Your task to perform on an android device: change the clock display to analog Image 0: 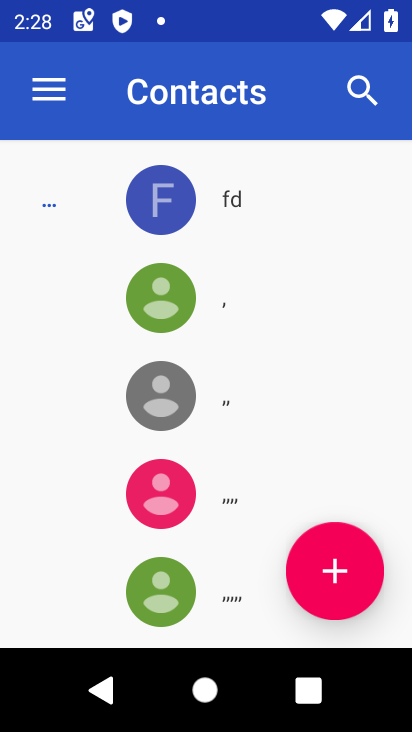
Step 0: press home button
Your task to perform on an android device: change the clock display to analog Image 1: 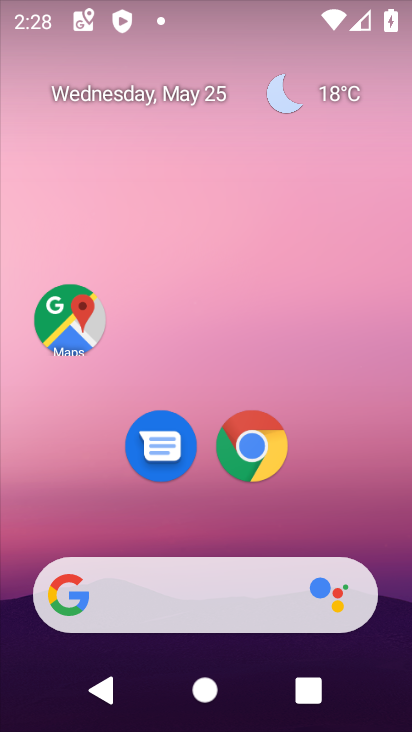
Step 1: drag from (239, 623) to (186, 179)
Your task to perform on an android device: change the clock display to analog Image 2: 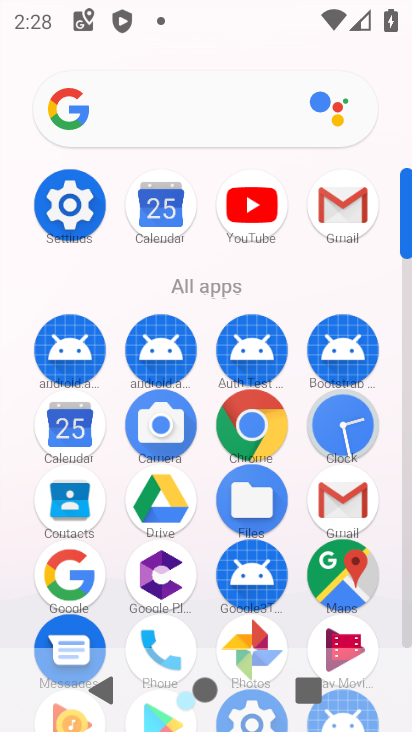
Step 2: click (339, 438)
Your task to perform on an android device: change the clock display to analog Image 3: 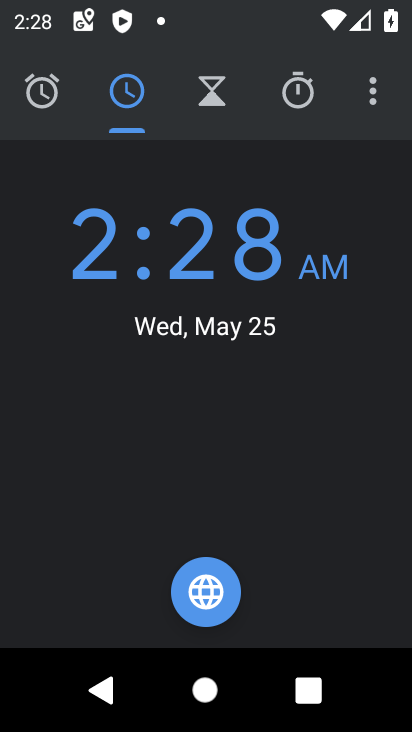
Step 3: click (377, 89)
Your task to perform on an android device: change the clock display to analog Image 4: 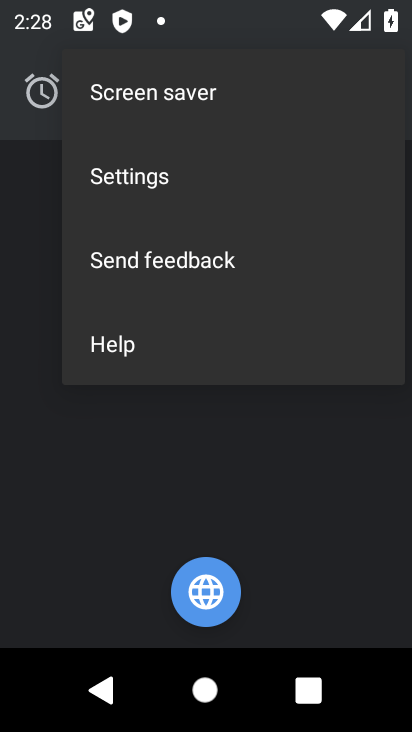
Step 4: click (190, 164)
Your task to perform on an android device: change the clock display to analog Image 5: 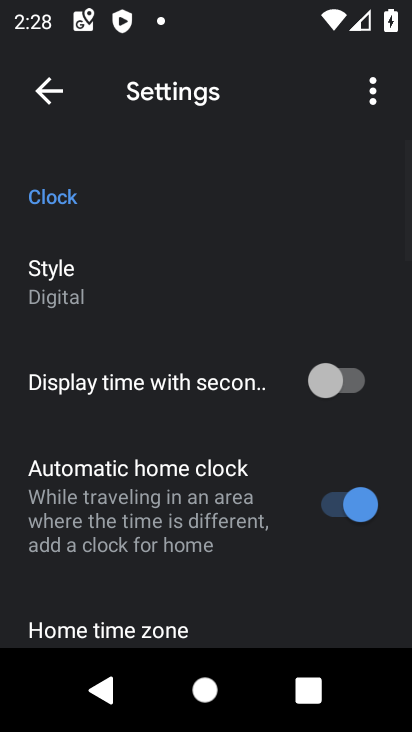
Step 5: click (88, 265)
Your task to perform on an android device: change the clock display to analog Image 6: 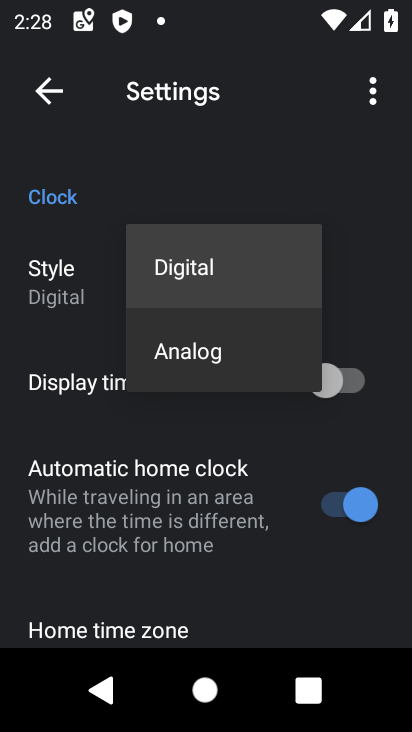
Step 6: click (176, 344)
Your task to perform on an android device: change the clock display to analog Image 7: 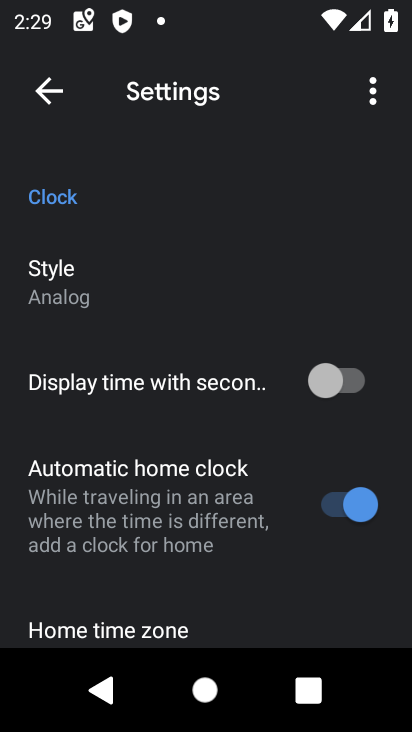
Step 7: task complete